Your task to perform on an android device: Open display settings Image 0: 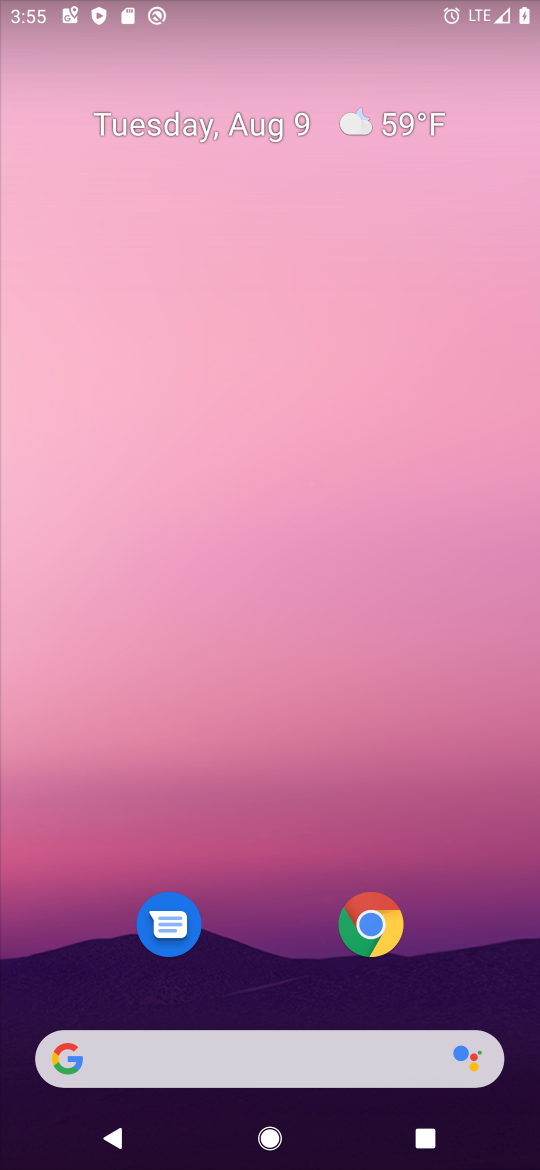
Step 0: drag from (280, 899) to (379, 5)
Your task to perform on an android device: Open display settings Image 1: 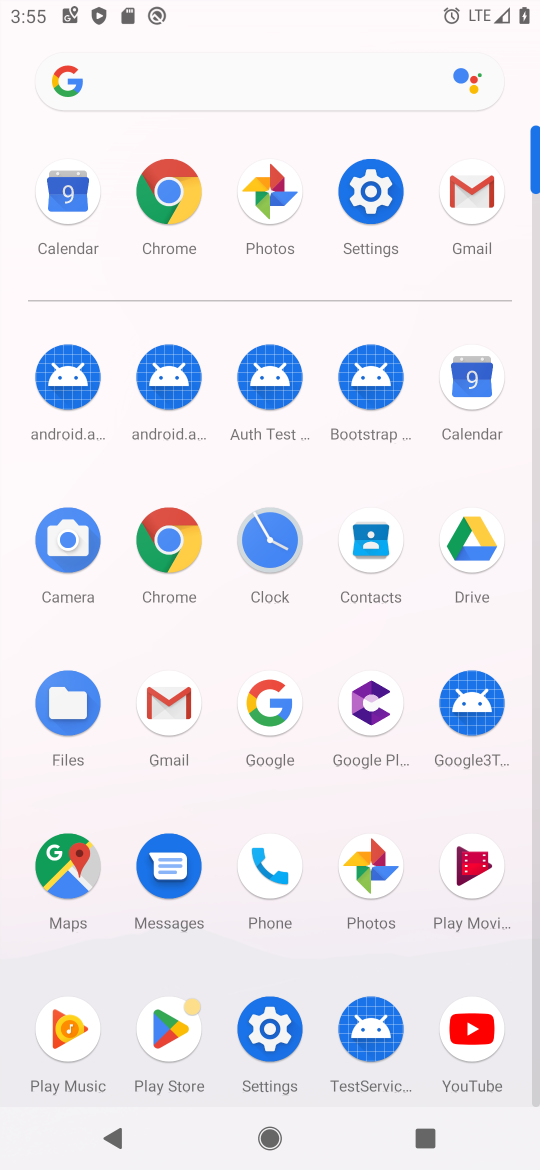
Step 1: click (373, 190)
Your task to perform on an android device: Open display settings Image 2: 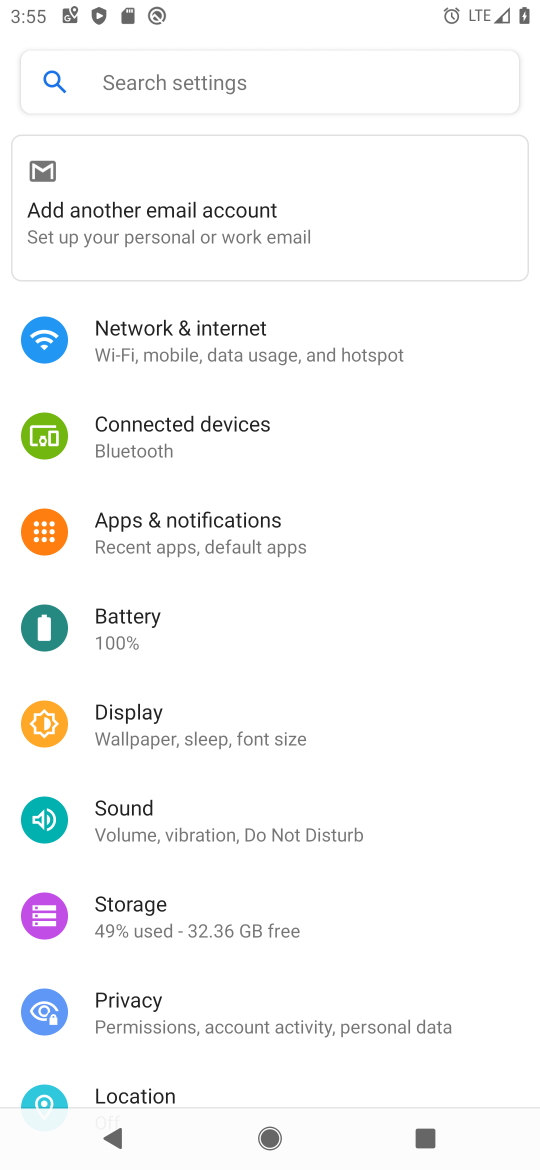
Step 2: click (187, 723)
Your task to perform on an android device: Open display settings Image 3: 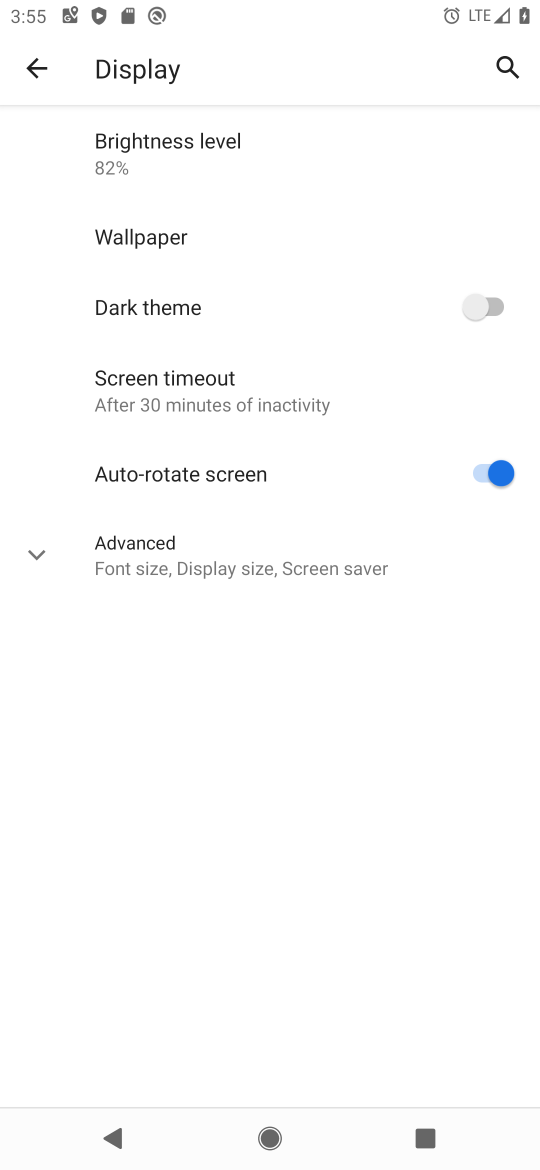
Step 3: click (29, 543)
Your task to perform on an android device: Open display settings Image 4: 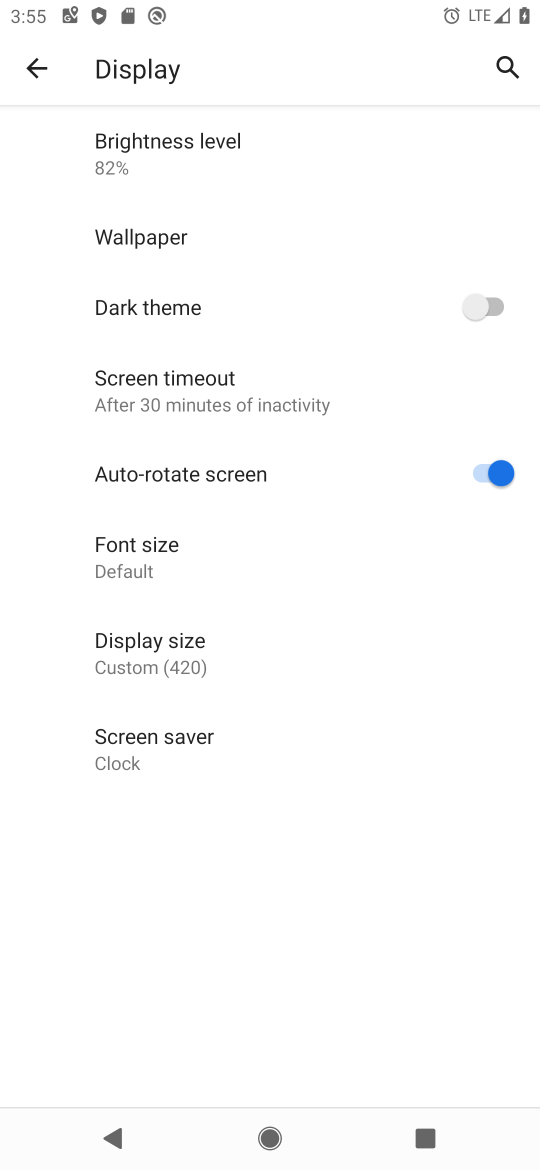
Step 4: task complete